Your task to perform on an android device: Search for the best books of all time on Goodreads Image 0: 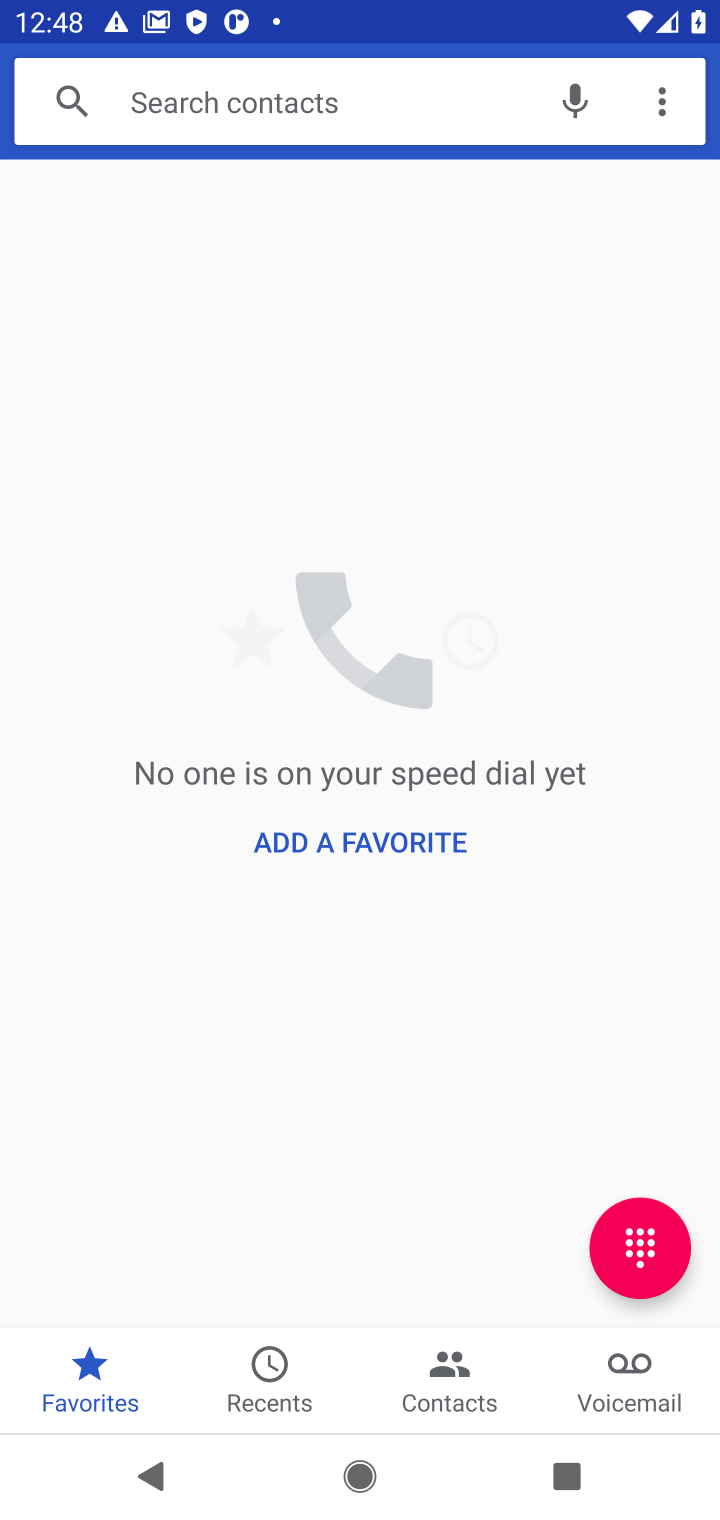
Step 0: press home button
Your task to perform on an android device: Search for the best books of all time on Goodreads Image 1: 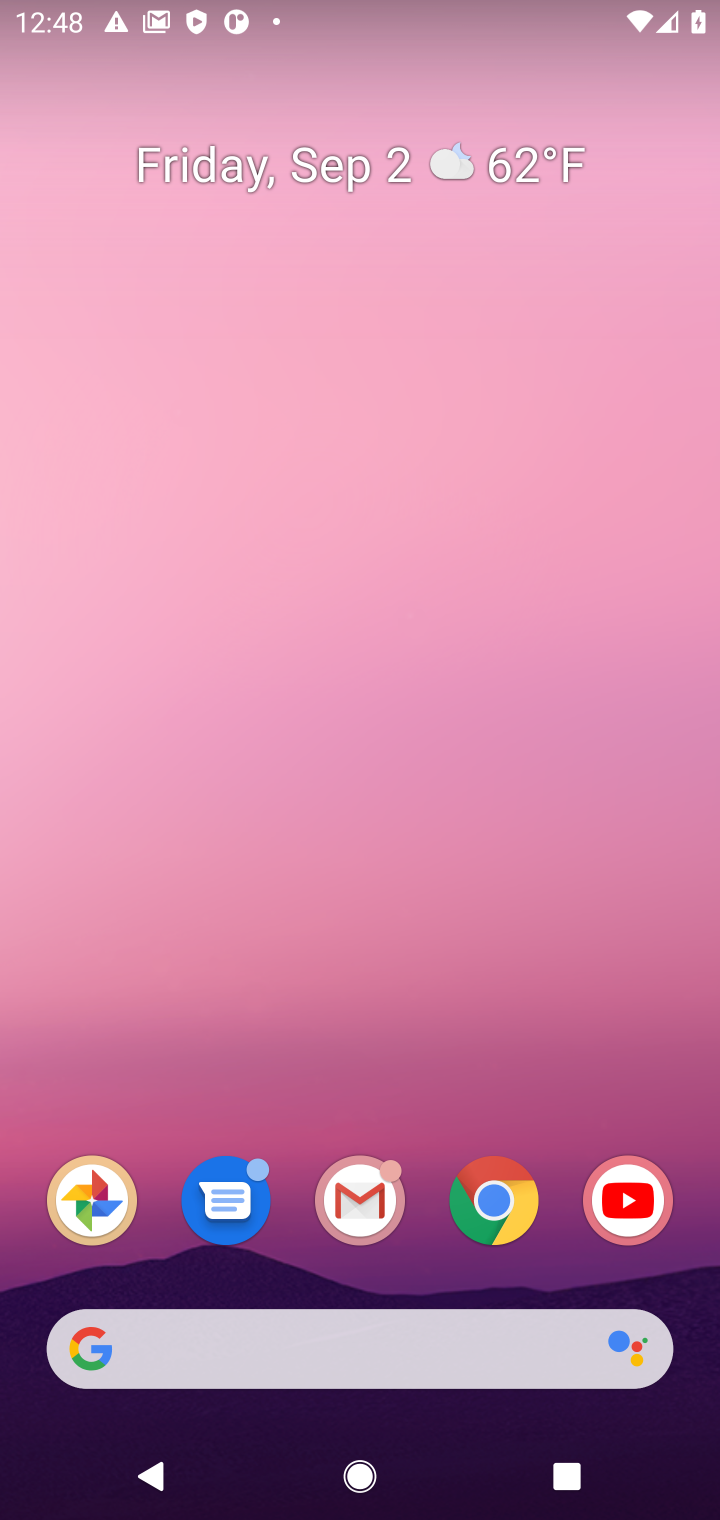
Step 1: click (499, 1201)
Your task to perform on an android device: Search for the best books of all time on Goodreads Image 2: 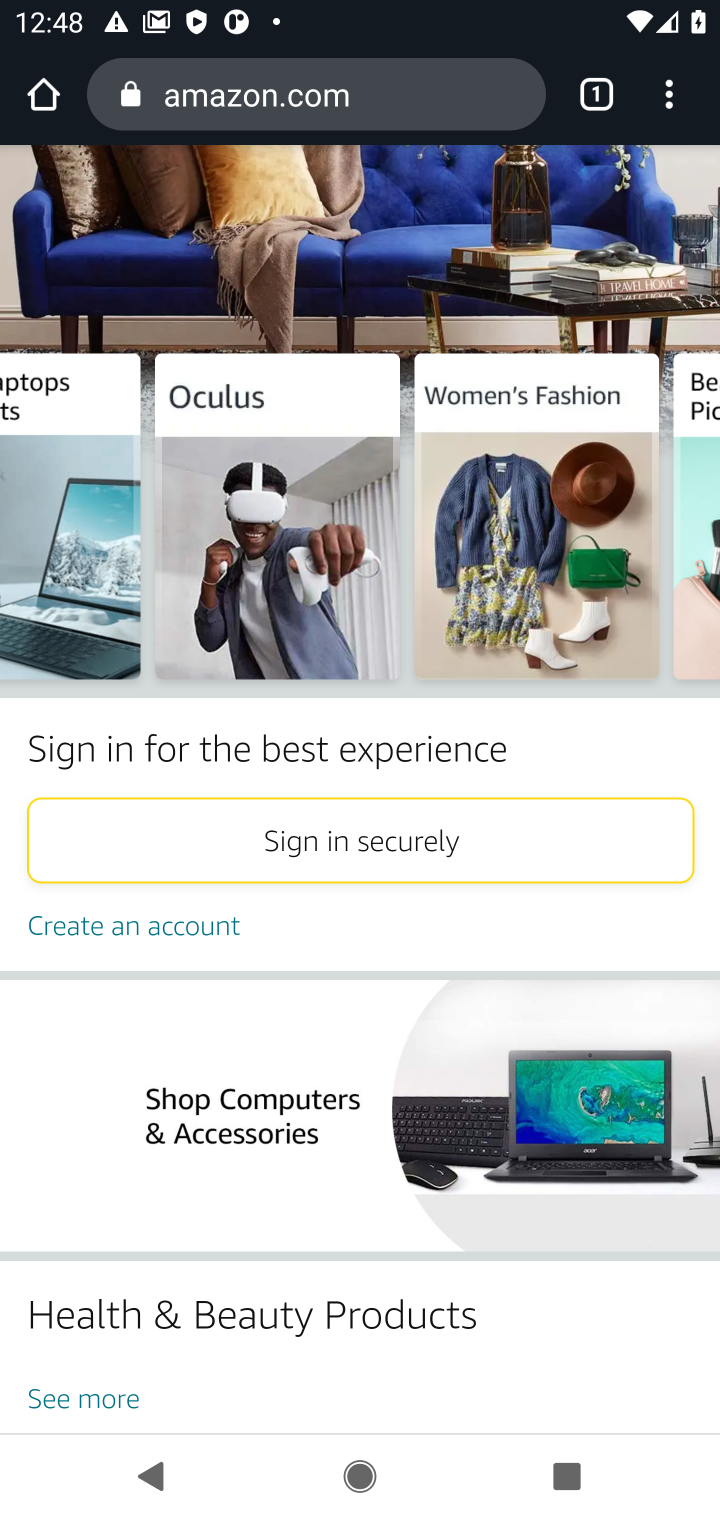
Step 2: click (445, 87)
Your task to perform on an android device: Search for the best books of all time on Goodreads Image 3: 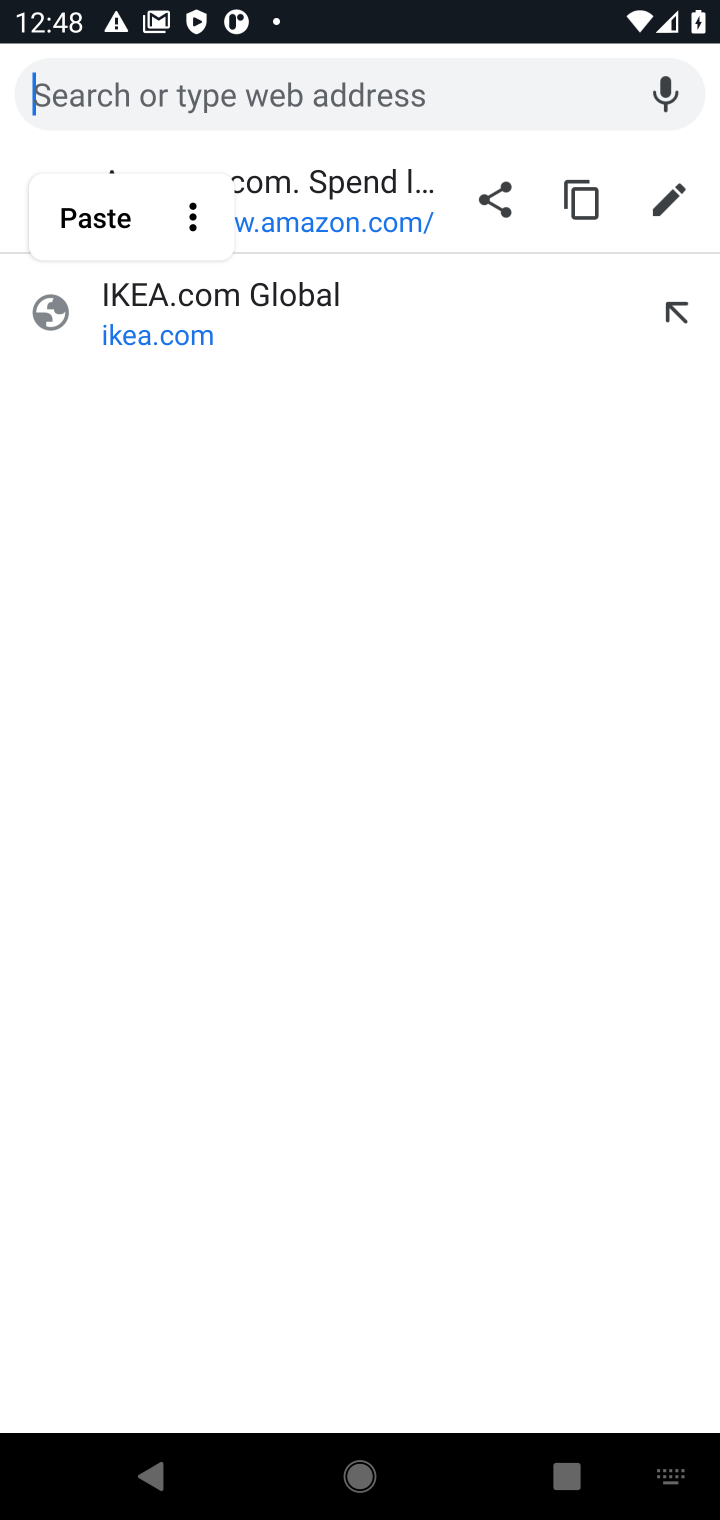
Step 3: type "Goodreads"
Your task to perform on an android device: Search for the best books of all time on Goodreads Image 4: 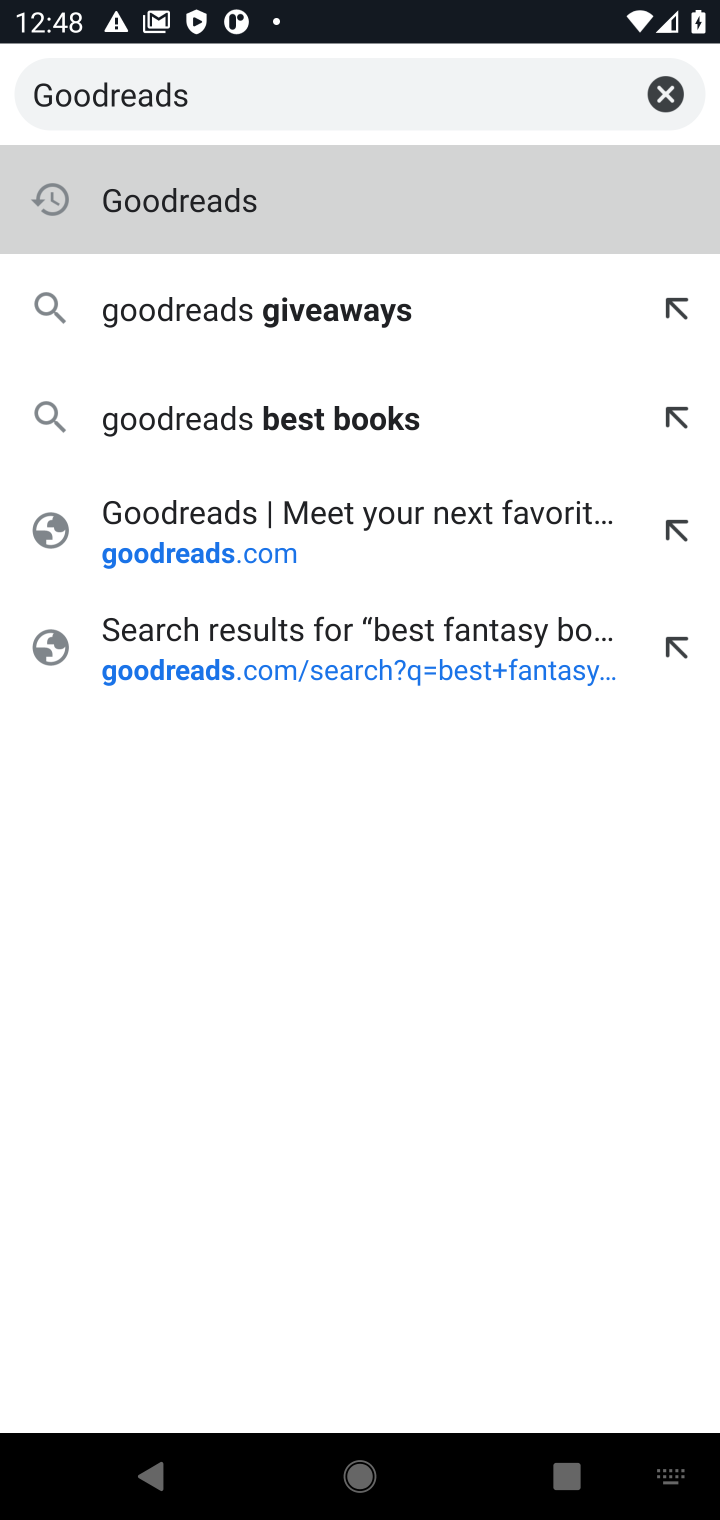
Step 4: press enter
Your task to perform on an android device: Search for the best books of all time on Goodreads Image 5: 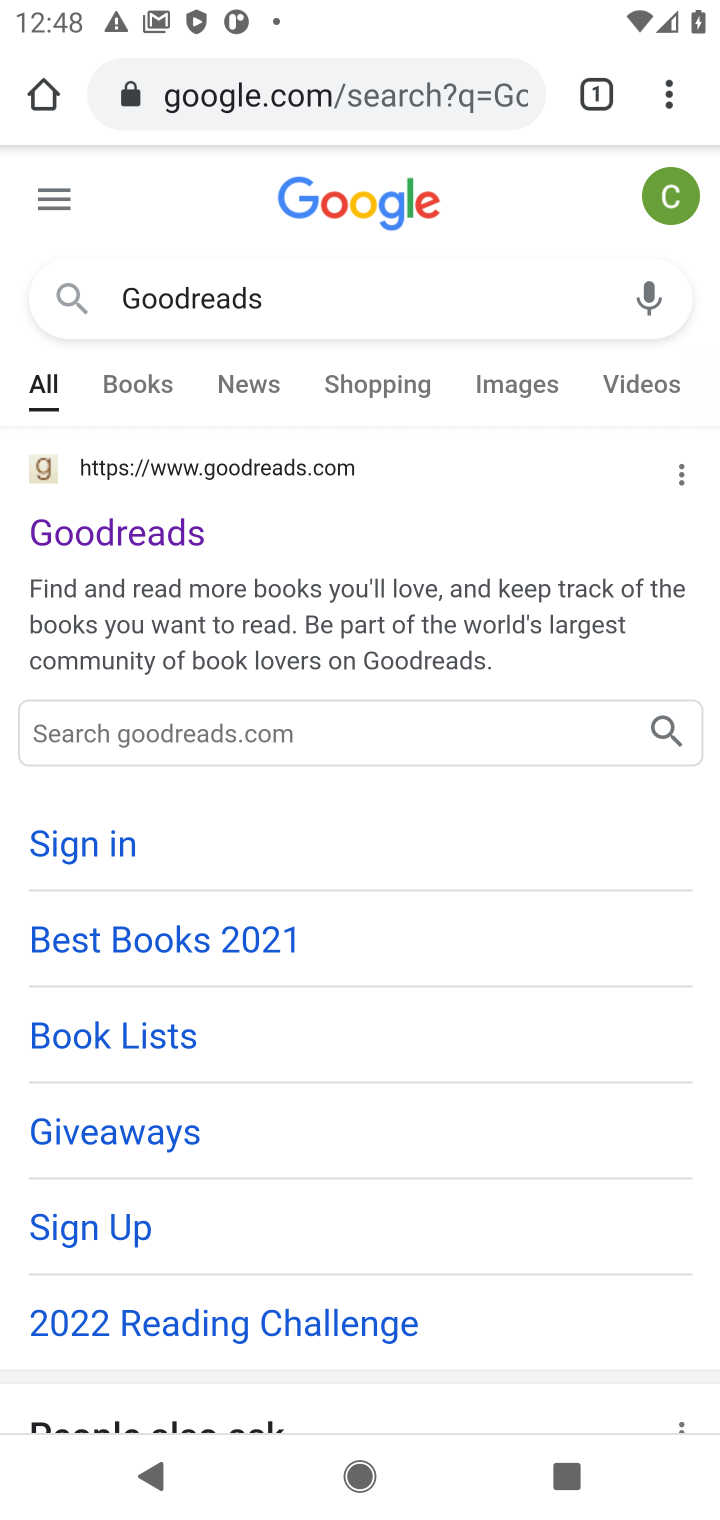
Step 5: click (150, 528)
Your task to perform on an android device: Search for the best books of all time on Goodreads Image 6: 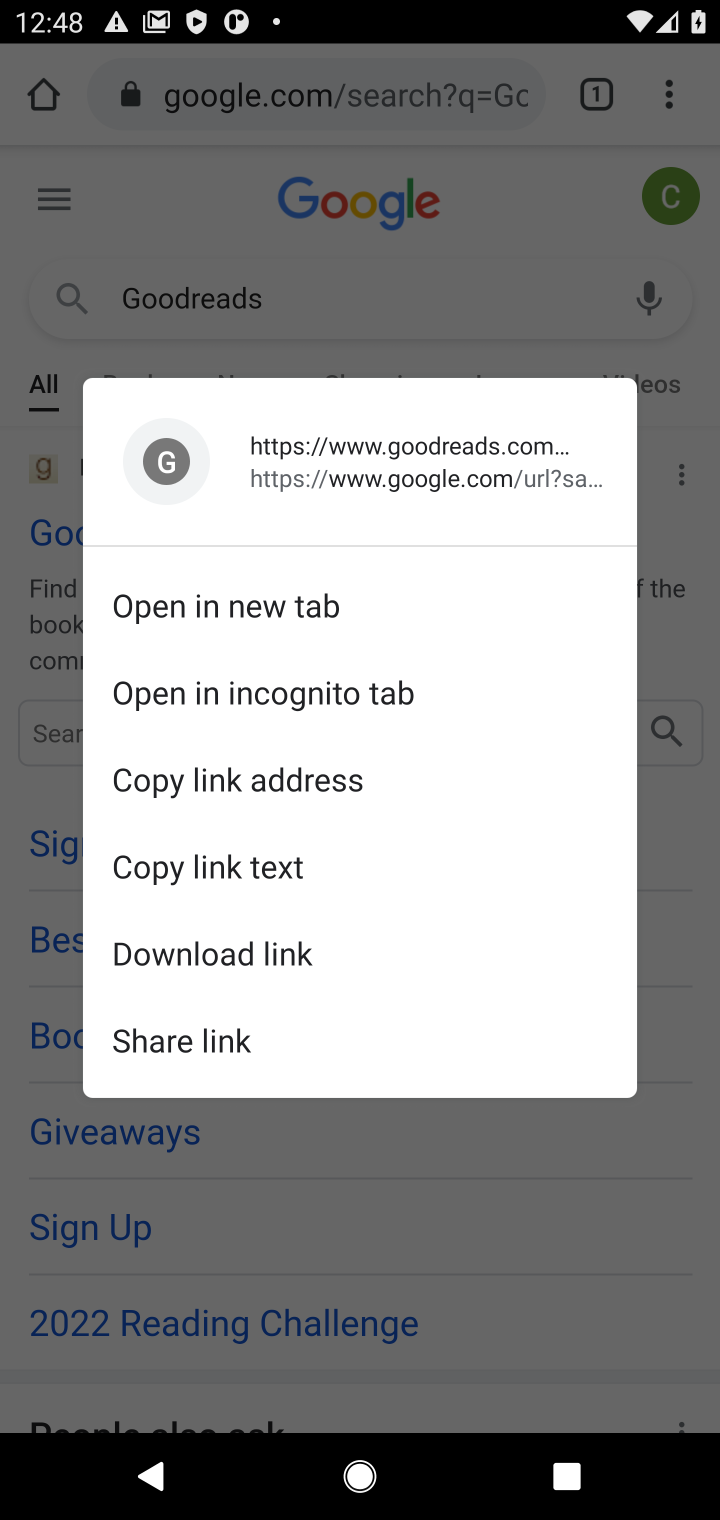
Step 6: click (682, 1047)
Your task to perform on an android device: Search for the best books of all time on Goodreads Image 7: 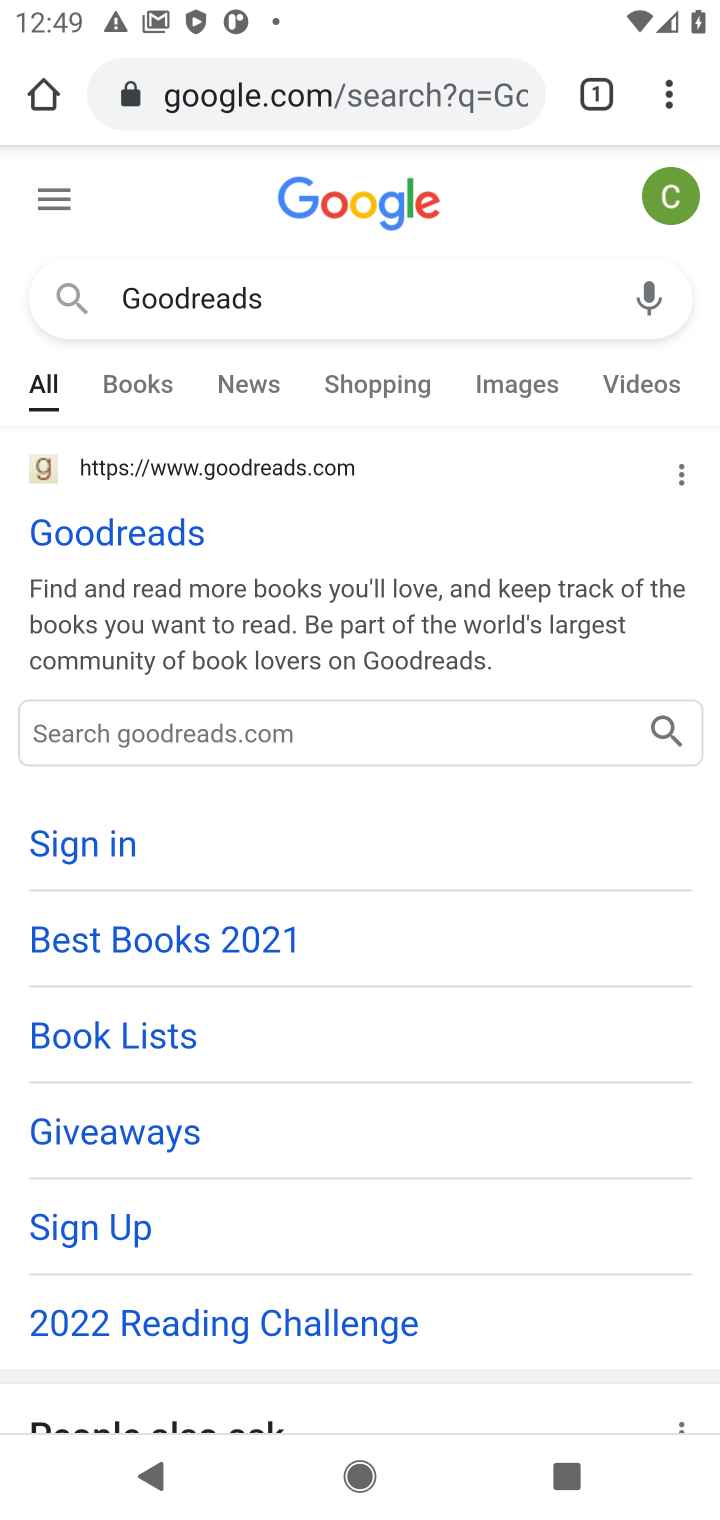
Step 7: click (69, 527)
Your task to perform on an android device: Search for the best books of all time on Goodreads Image 8: 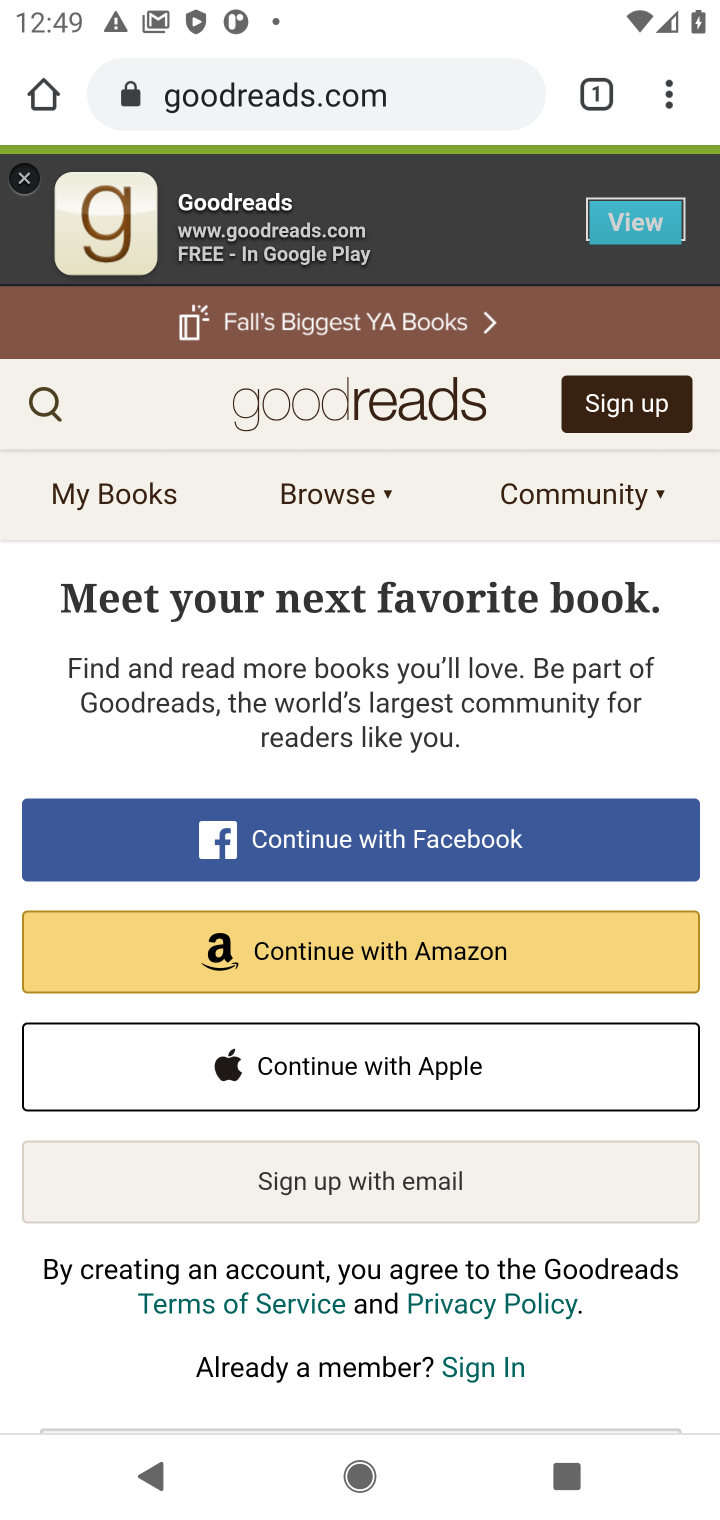
Step 8: click (36, 397)
Your task to perform on an android device: Search for the best books of all time on Goodreads Image 9: 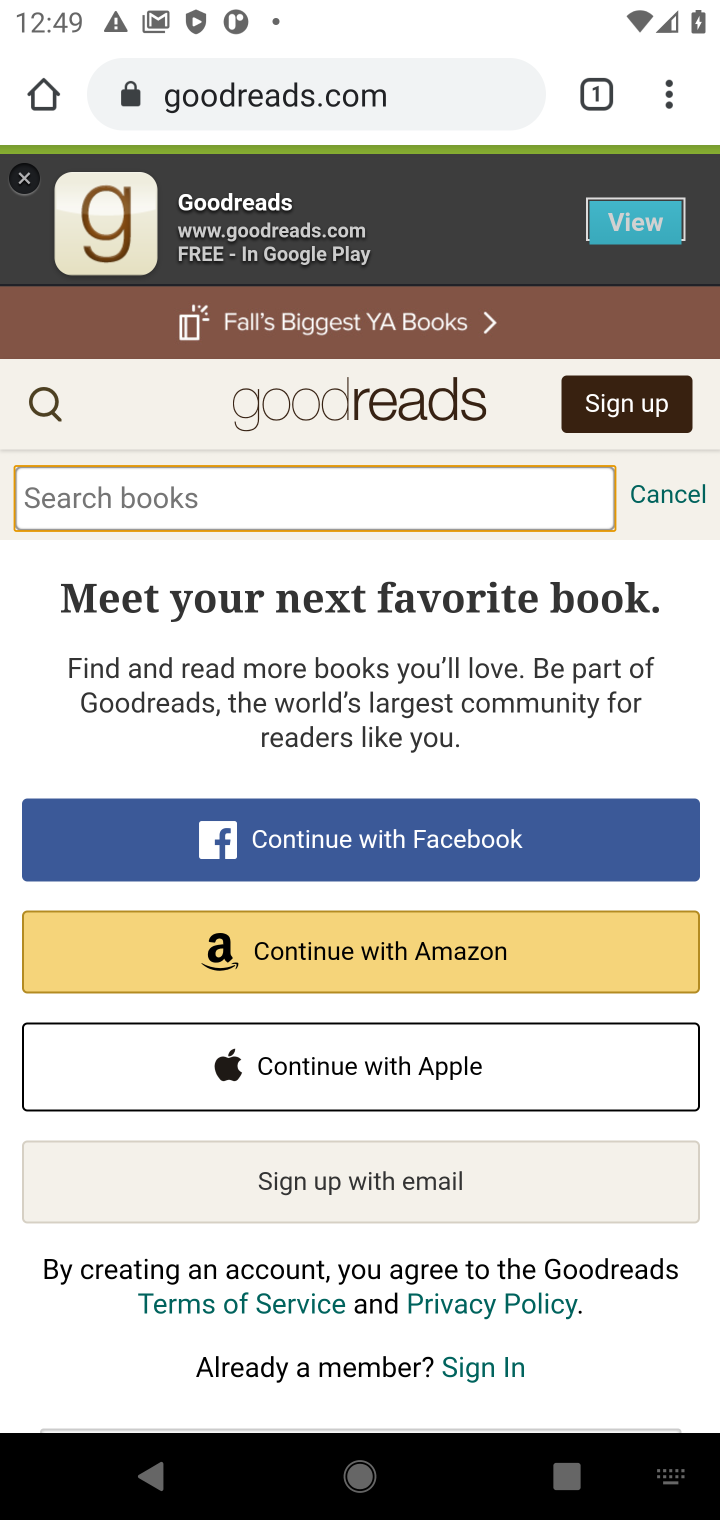
Step 9: type "best books of all time"
Your task to perform on an android device: Search for the best books of all time on Goodreads Image 10: 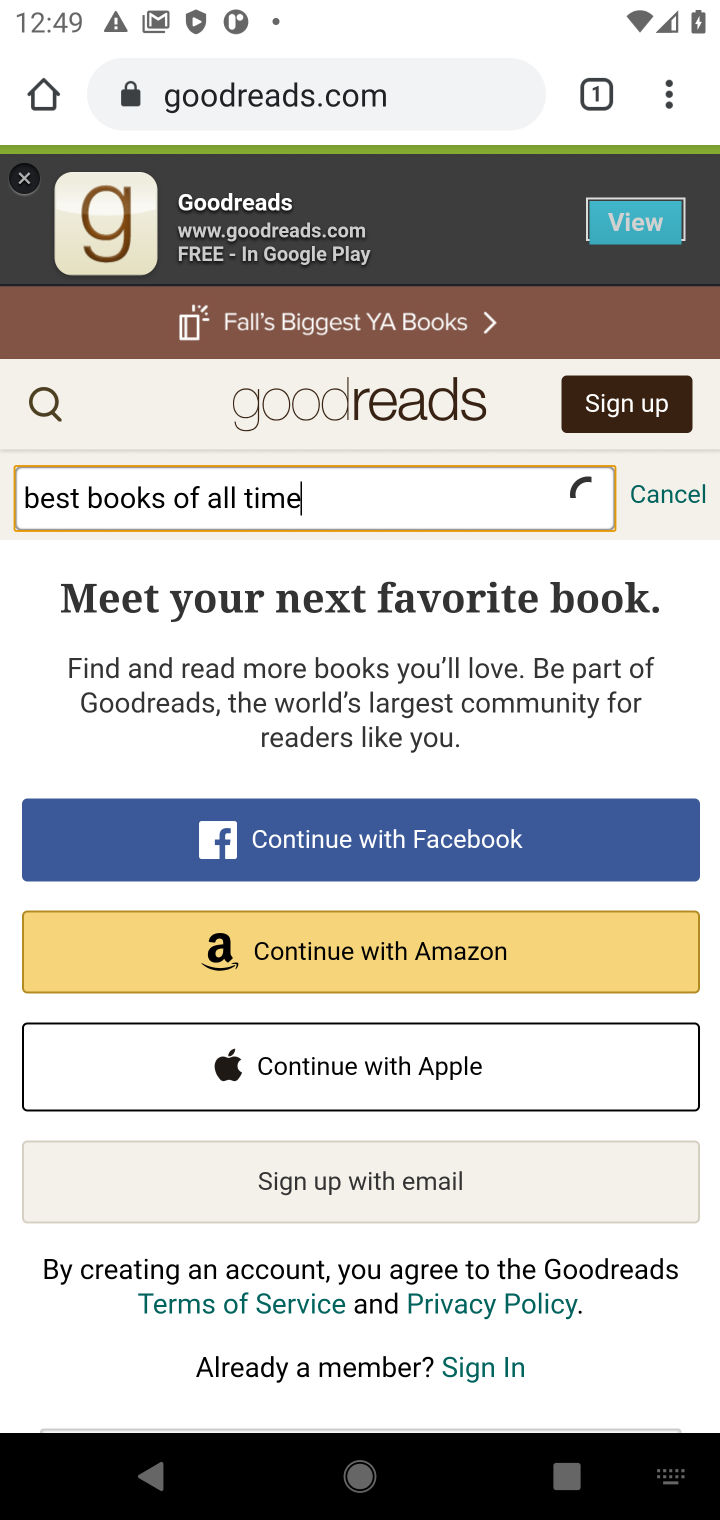
Step 10: press enter
Your task to perform on an android device: Search for the best books of all time on Goodreads Image 11: 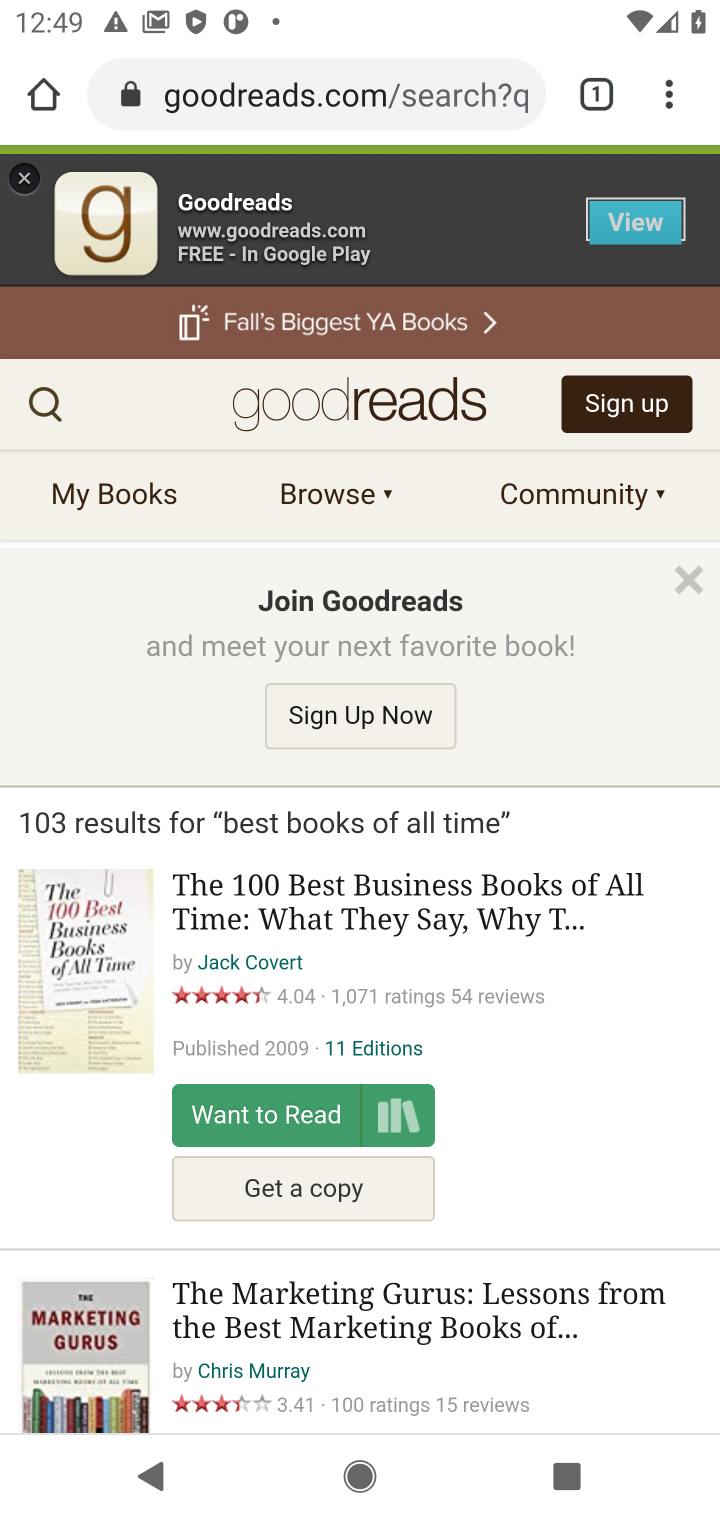
Step 11: task complete